Your task to perform on an android device: Search for macbook air on costco.com, select the first entry, add it to the cart, then select checkout. Image 0: 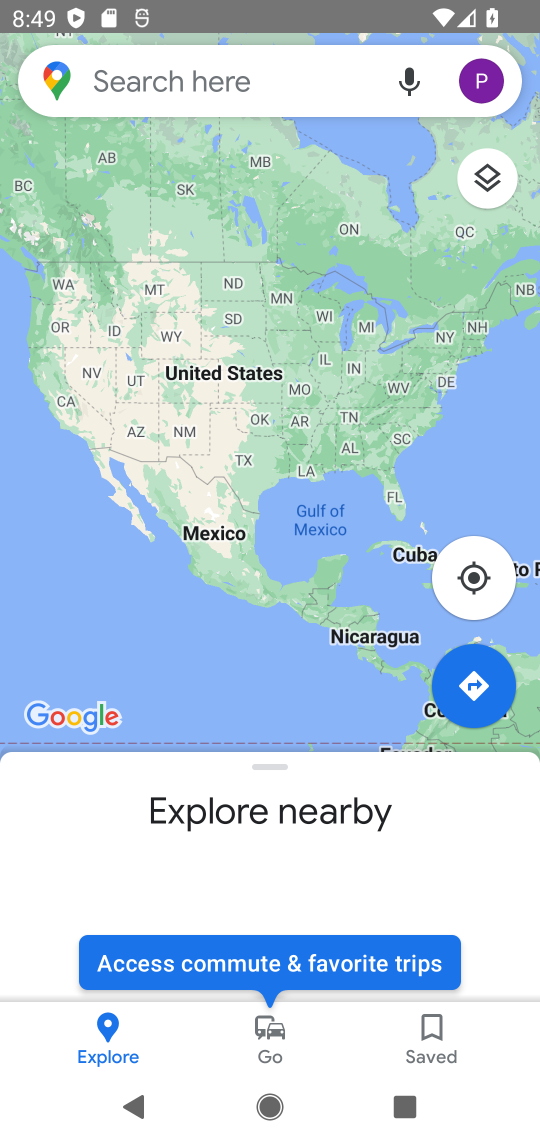
Step 0: press home button
Your task to perform on an android device: Search for macbook air on costco.com, select the first entry, add it to the cart, then select checkout. Image 1: 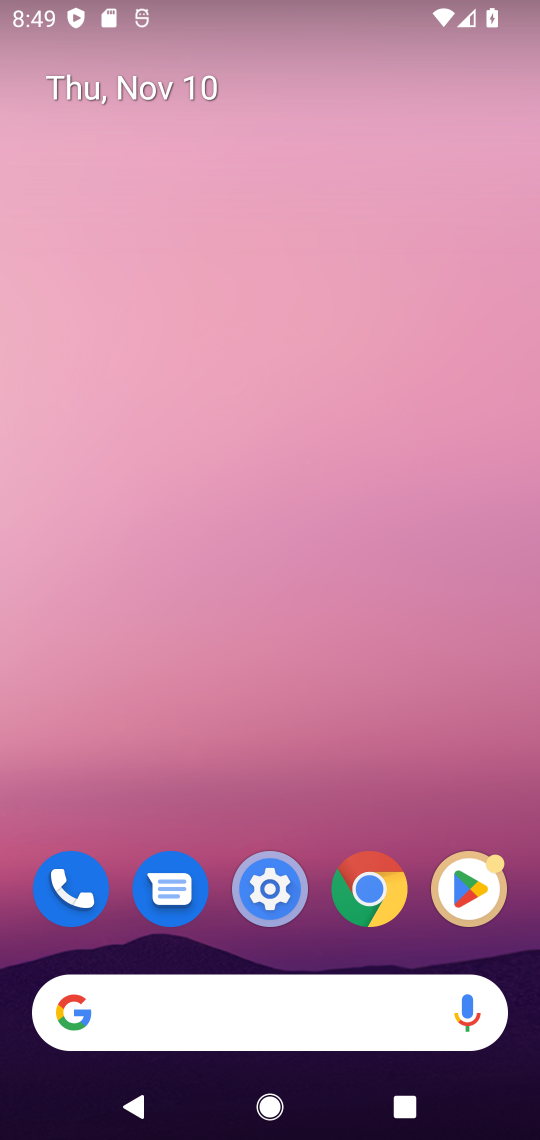
Step 1: click (355, 880)
Your task to perform on an android device: Search for macbook air on costco.com, select the first entry, add it to the cart, then select checkout. Image 2: 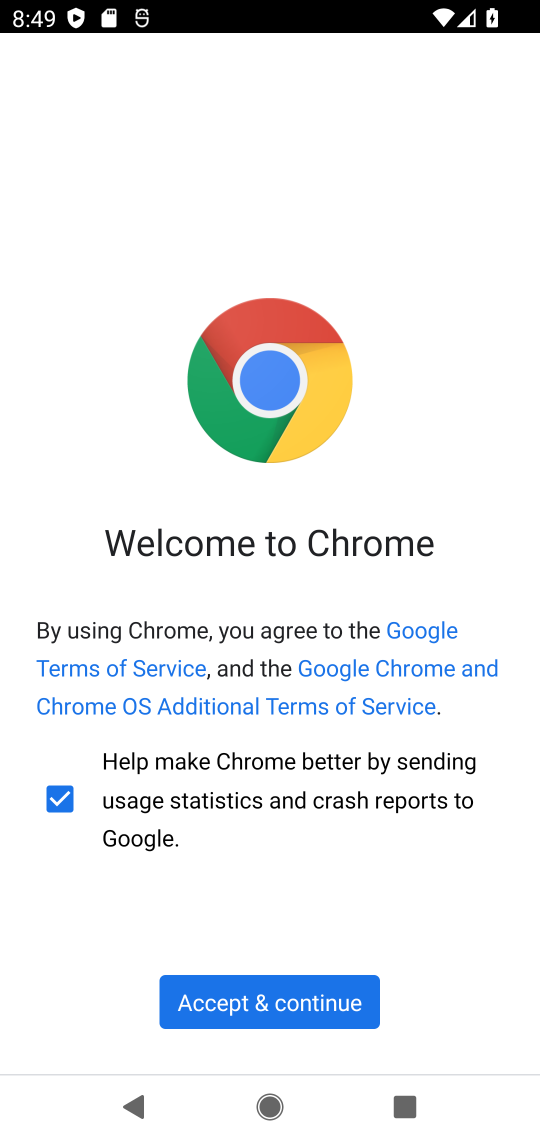
Step 2: click (260, 995)
Your task to perform on an android device: Search for macbook air on costco.com, select the first entry, add it to the cart, then select checkout. Image 3: 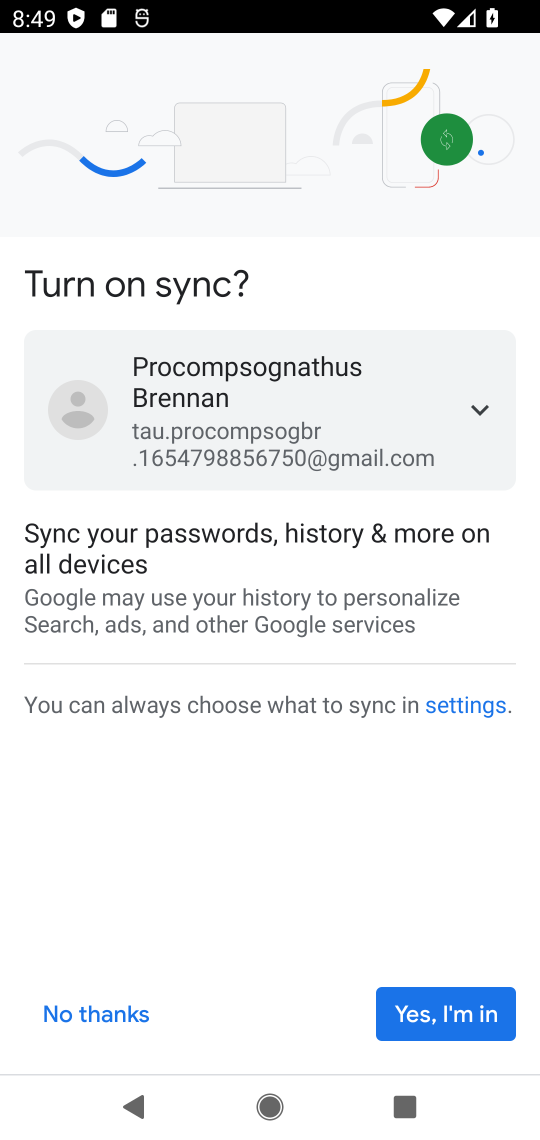
Step 3: click (393, 1022)
Your task to perform on an android device: Search for macbook air on costco.com, select the first entry, add it to the cart, then select checkout. Image 4: 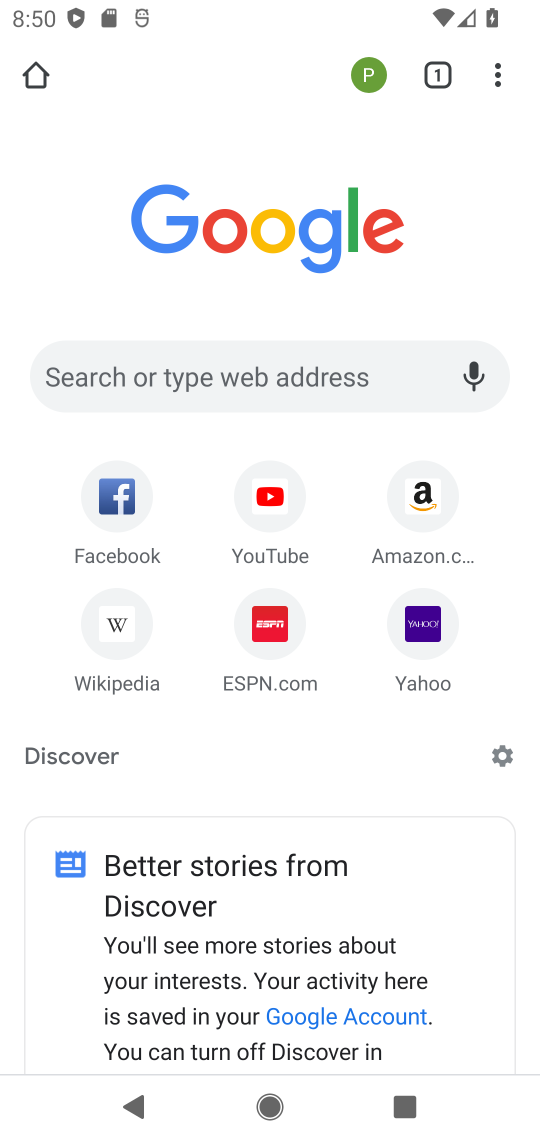
Step 4: click (290, 363)
Your task to perform on an android device: Search for macbook air on costco.com, select the first entry, add it to the cart, then select checkout. Image 5: 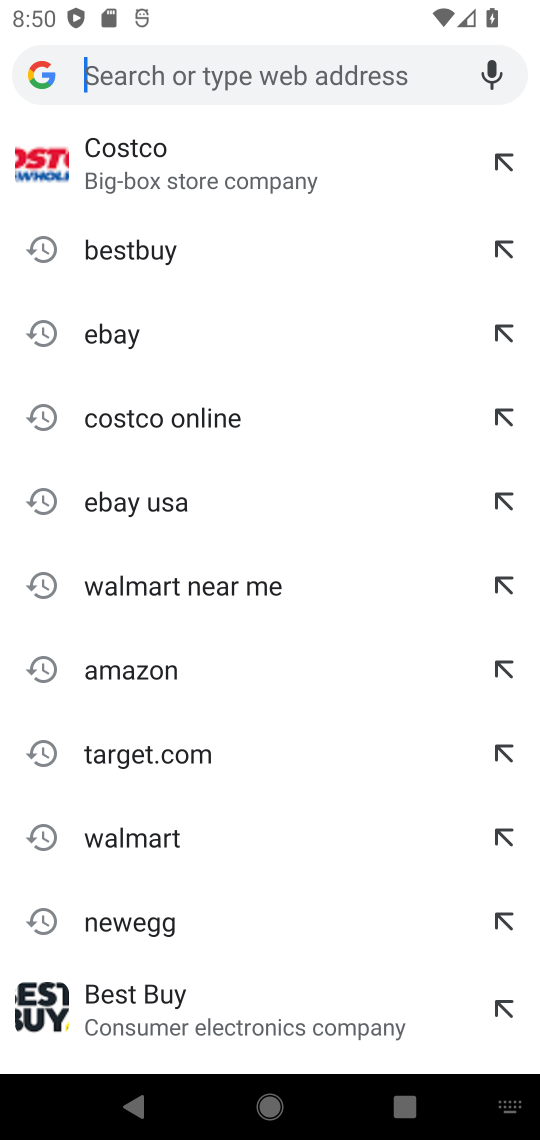
Step 5: click (115, 137)
Your task to perform on an android device: Search for macbook air on costco.com, select the first entry, add it to the cart, then select checkout. Image 6: 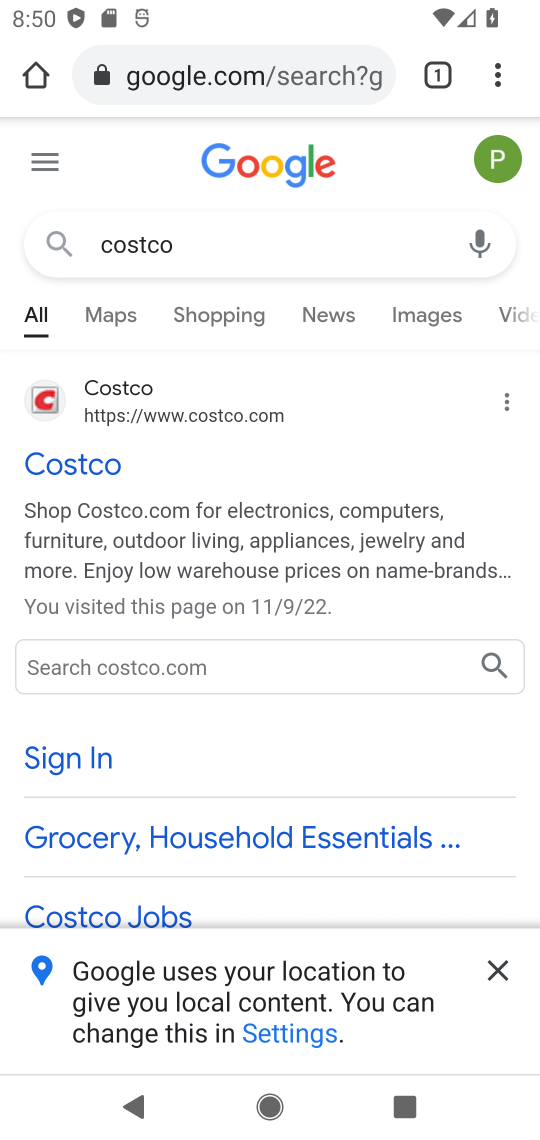
Step 6: click (94, 466)
Your task to perform on an android device: Search for macbook air on costco.com, select the first entry, add it to the cart, then select checkout. Image 7: 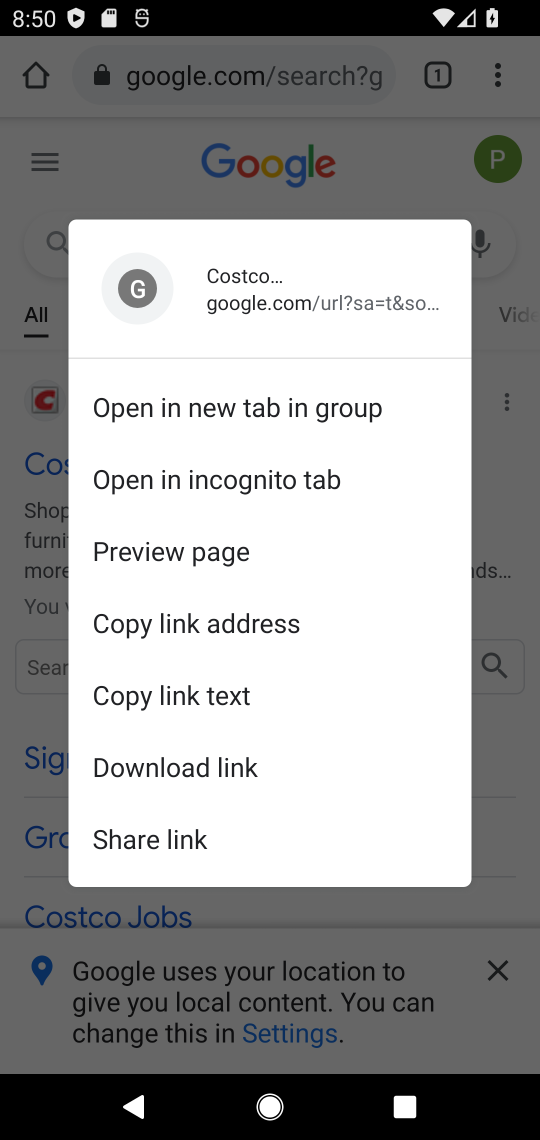
Step 7: click (57, 465)
Your task to perform on an android device: Search for macbook air on costco.com, select the first entry, add it to the cart, then select checkout. Image 8: 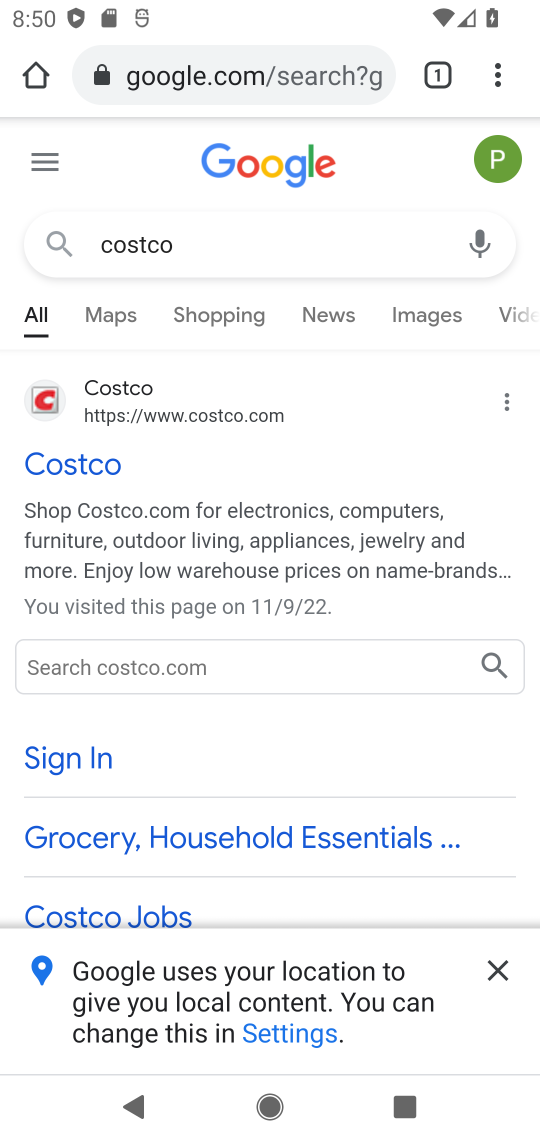
Step 8: click (85, 464)
Your task to perform on an android device: Search for macbook air on costco.com, select the first entry, add it to the cart, then select checkout. Image 9: 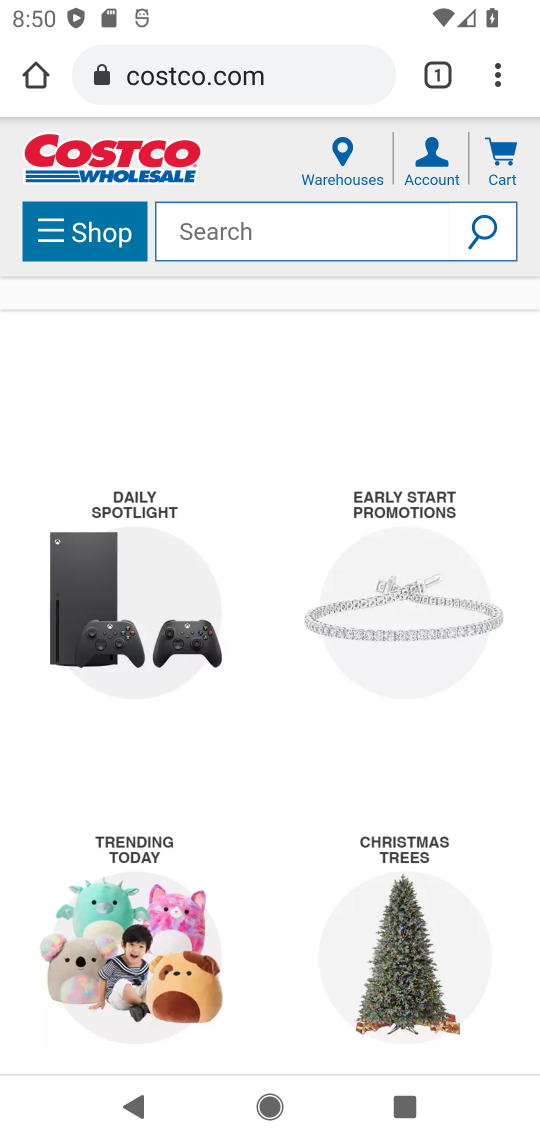
Step 9: click (252, 231)
Your task to perform on an android device: Search for macbook air on costco.com, select the first entry, add it to the cart, then select checkout. Image 10: 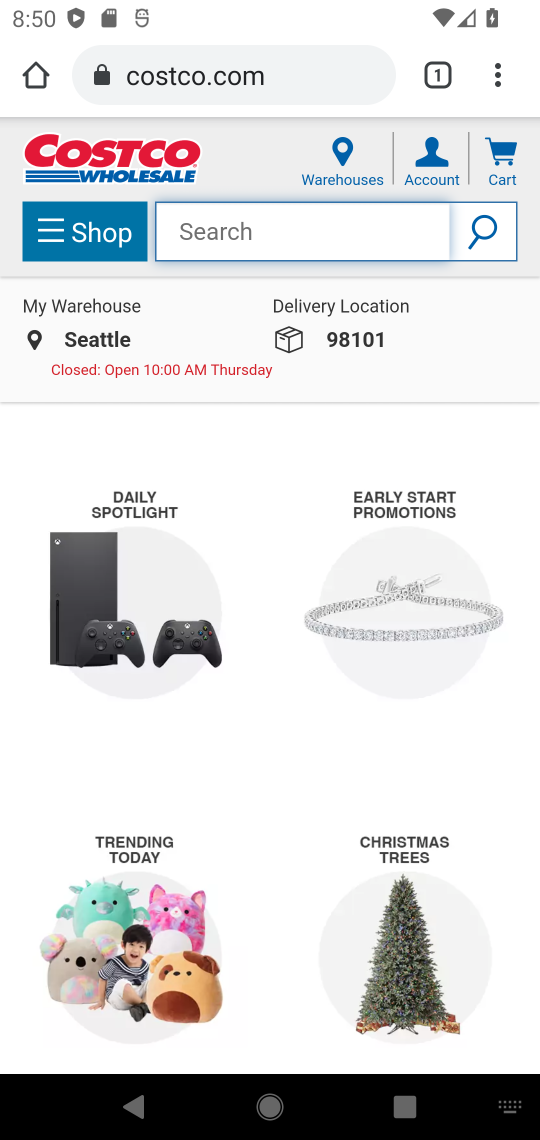
Step 10: type "macbook air"
Your task to perform on an android device: Search for macbook air on costco.com, select the first entry, add it to the cart, then select checkout. Image 11: 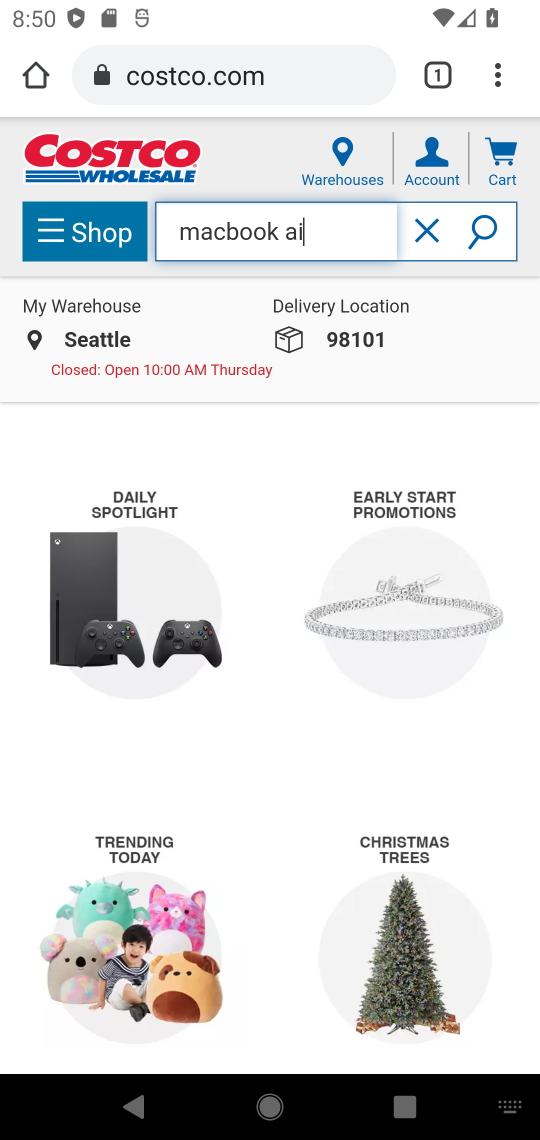
Step 11: press enter
Your task to perform on an android device: Search for macbook air on costco.com, select the first entry, add it to the cart, then select checkout. Image 12: 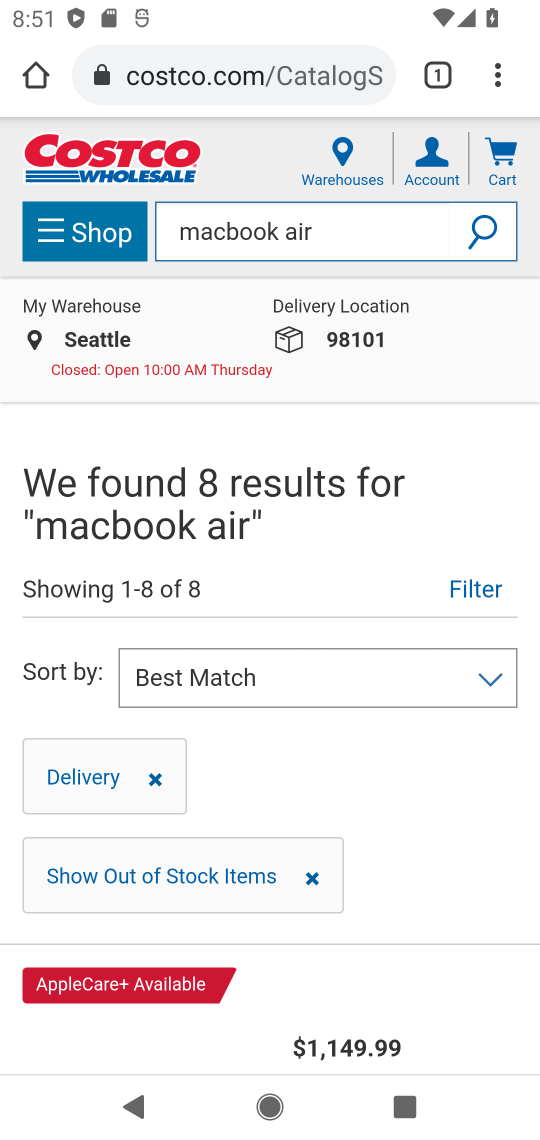
Step 12: drag from (351, 863) to (410, 218)
Your task to perform on an android device: Search for macbook air on costco.com, select the first entry, add it to the cart, then select checkout. Image 13: 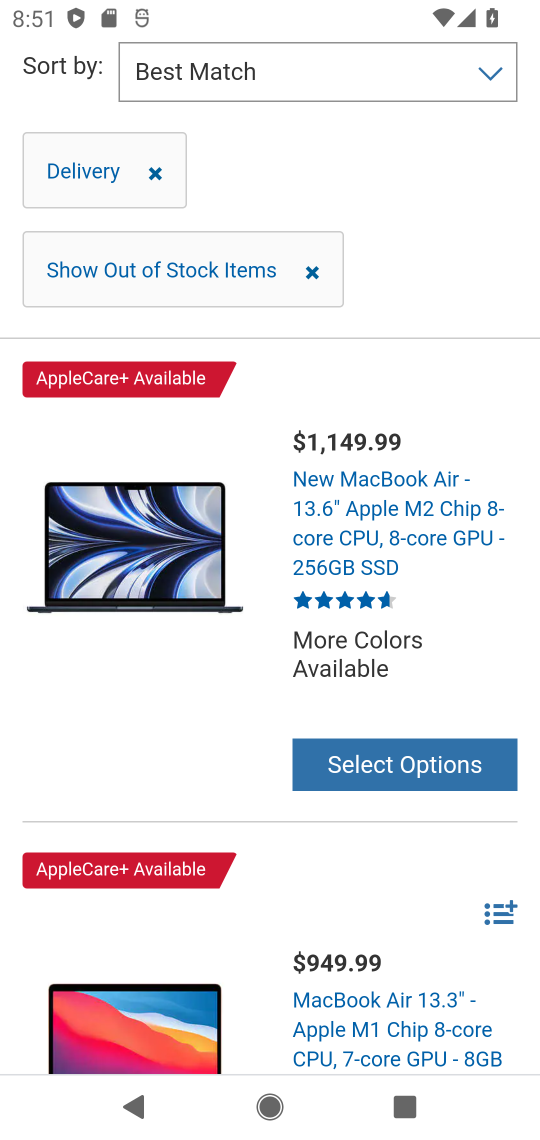
Step 13: click (383, 543)
Your task to perform on an android device: Search for macbook air on costco.com, select the first entry, add it to the cart, then select checkout. Image 14: 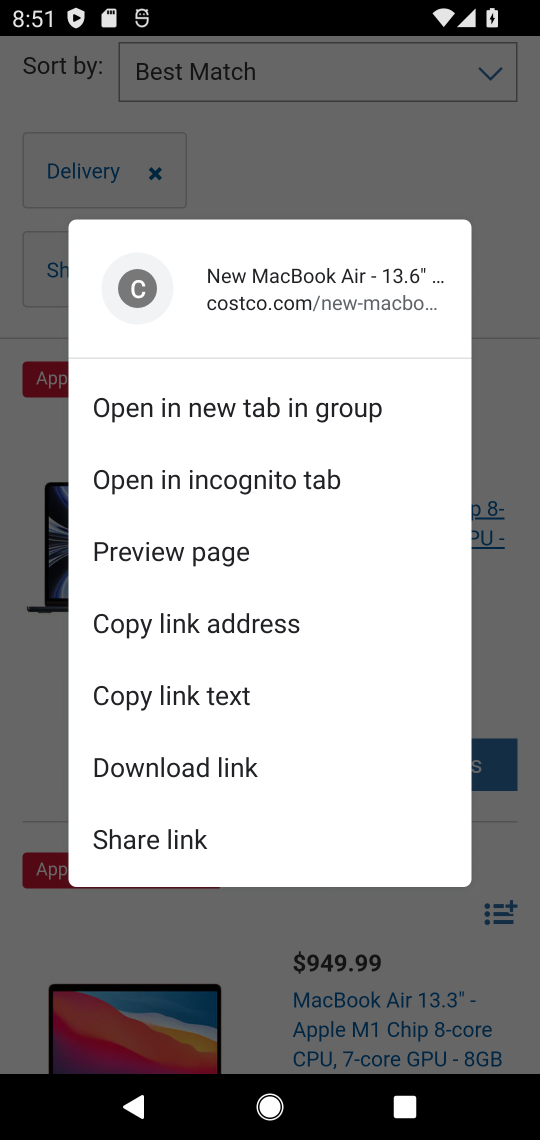
Step 14: click (481, 535)
Your task to perform on an android device: Search for macbook air on costco.com, select the first entry, add it to the cart, then select checkout. Image 15: 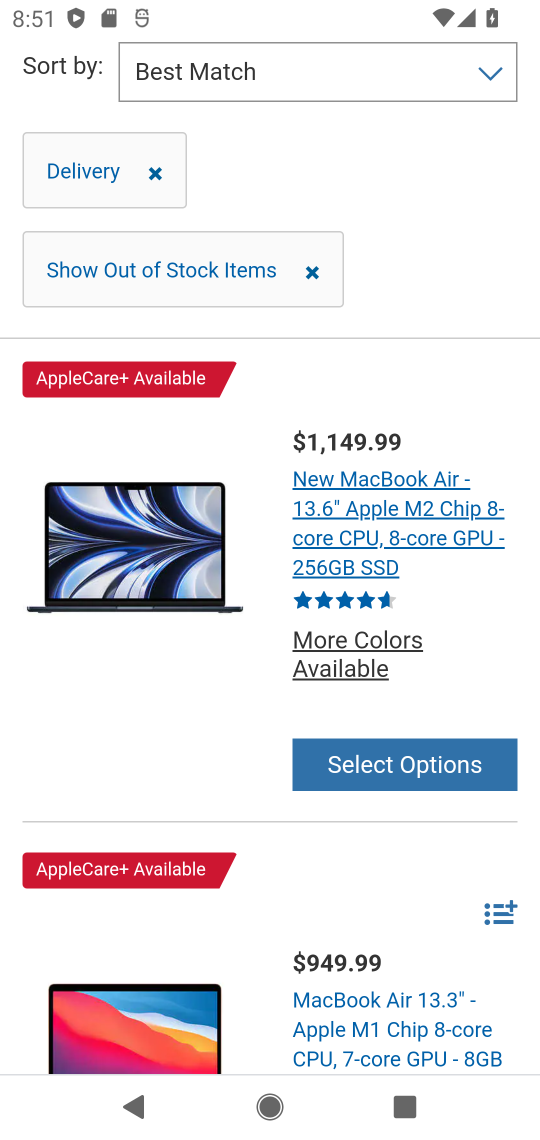
Step 15: drag from (335, 895) to (422, 577)
Your task to perform on an android device: Search for macbook air on costco.com, select the first entry, add it to the cart, then select checkout. Image 16: 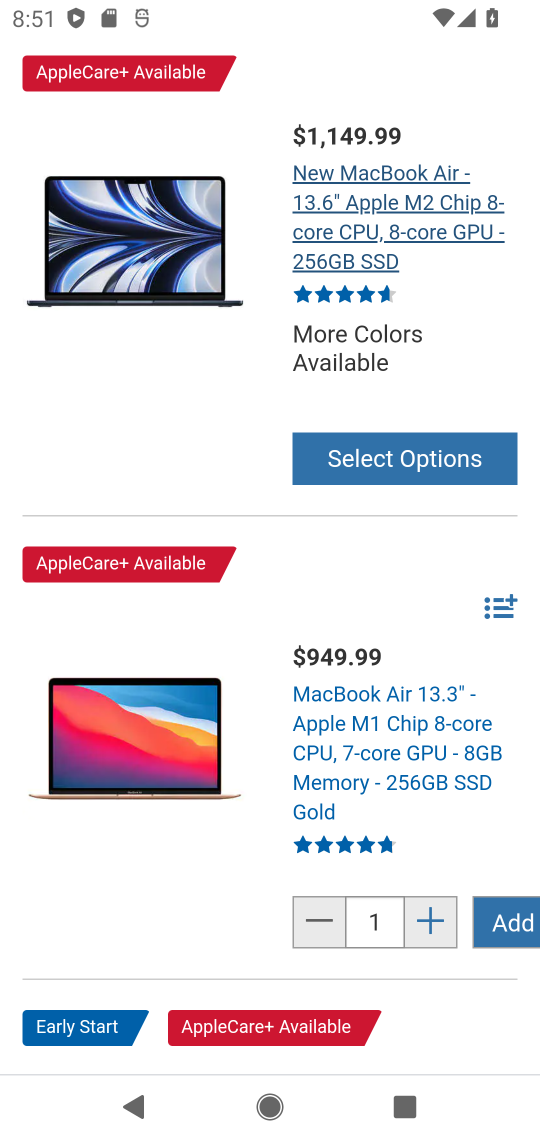
Step 16: click (349, 213)
Your task to perform on an android device: Search for macbook air on costco.com, select the first entry, add it to the cart, then select checkout. Image 17: 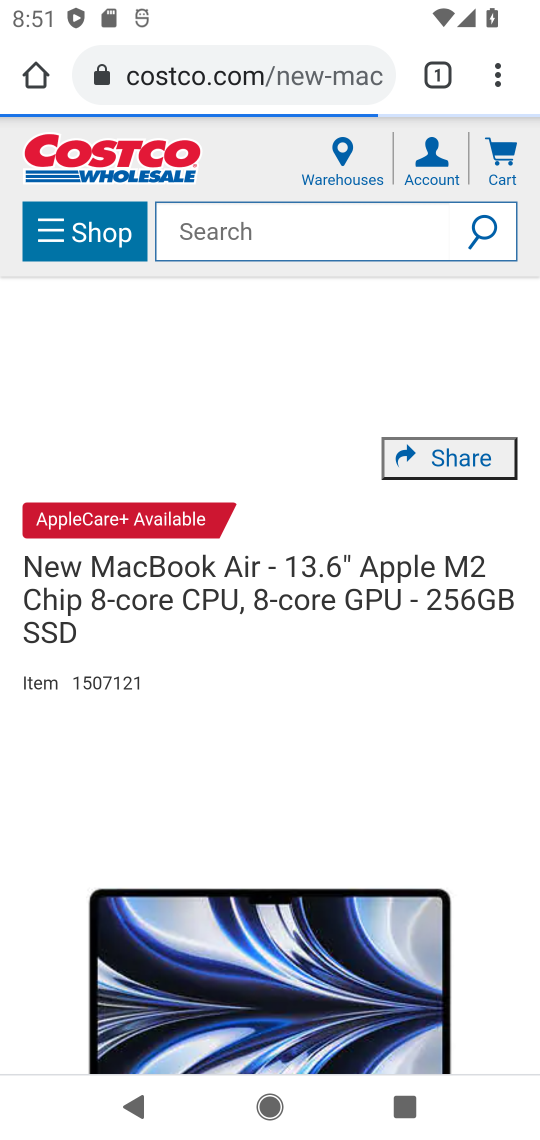
Step 17: drag from (298, 728) to (426, 147)
Your task to perform on an android device: Search for macbook air on costco.com, select the first entry, add it to the cart, then select checkout. Image 18: 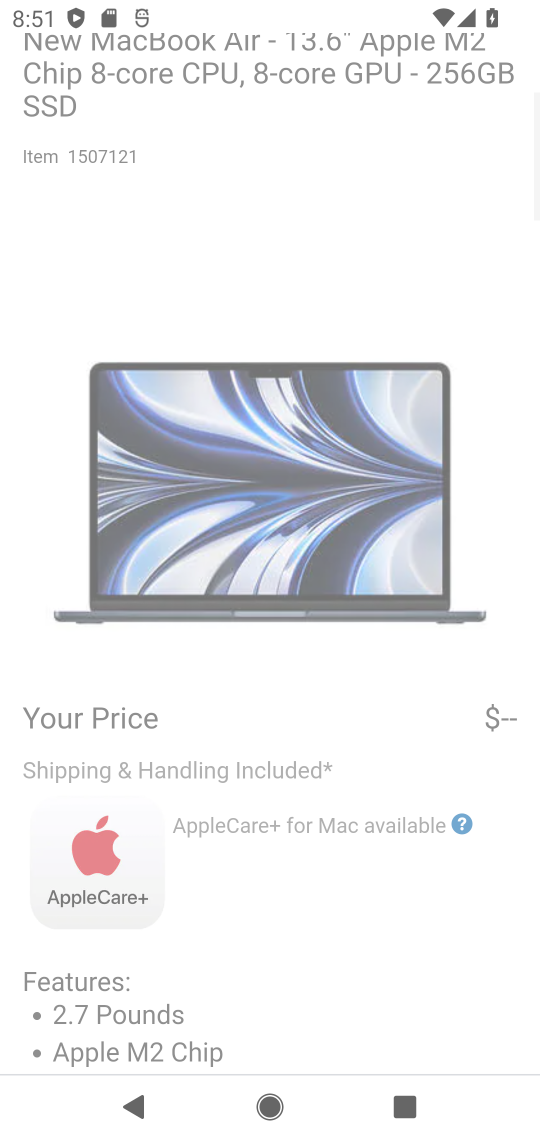
Step 18: drag from (327, 893) to (476, 250)
Your task to perform on an android device: Search for macbook air on costco.com, select the first entry, add it to the cart, then select checkout. Image 19: 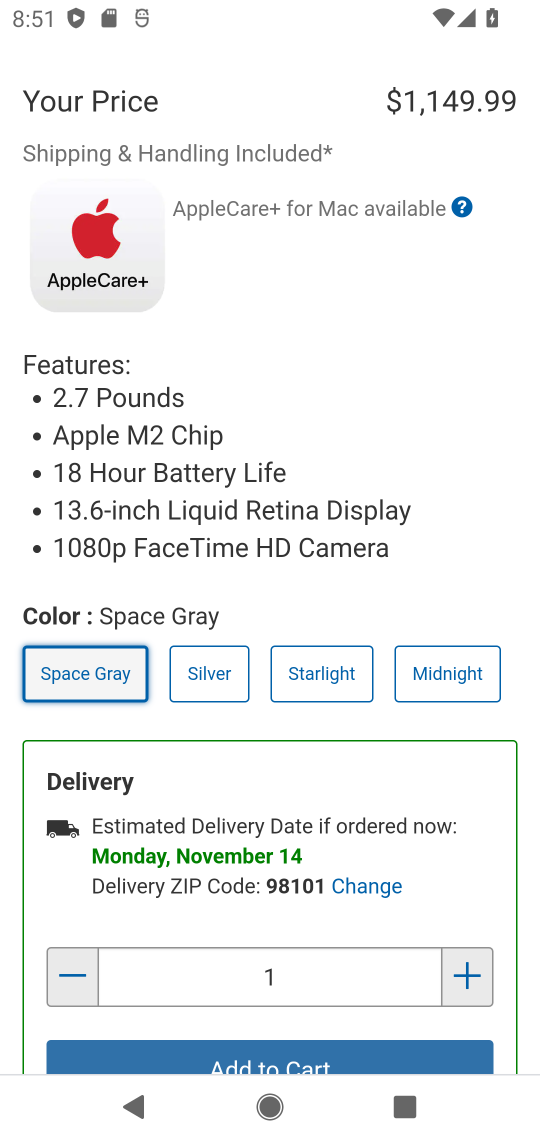
Step 19: drag from (364, 917) to (471, 391)
Your task to perform on an android device: Search for macbook air on costco.com, select the first entry, add it to the cart, then select checkout. Image 20: 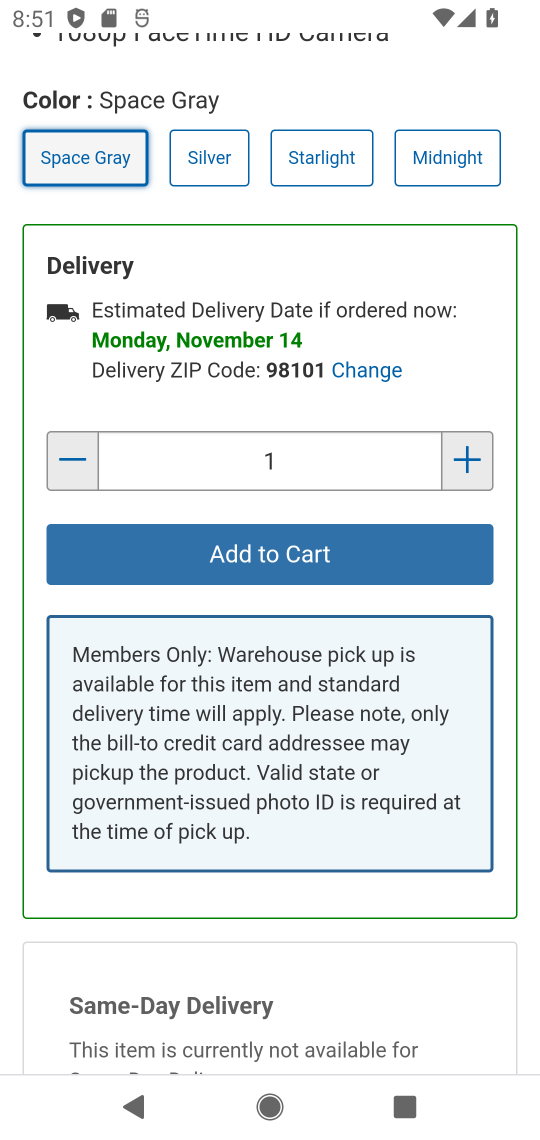
Step 20: click (280, 554)
Your task to perform on an android device: Search for macbook air on costco.com, select the first entry, add it to the cart, then select checkout. Image 21: 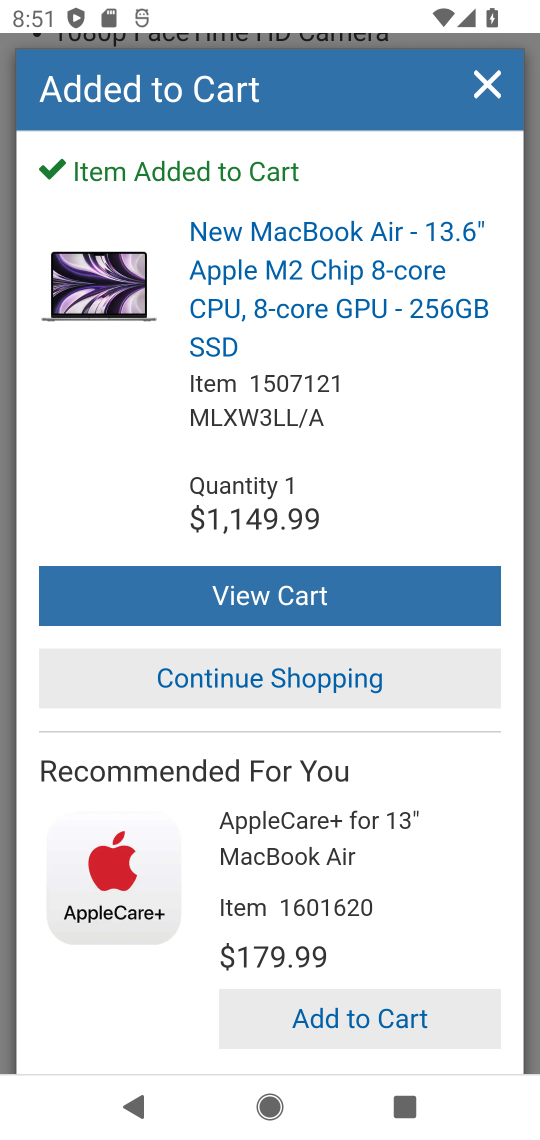
Step 21: click (286, 593)
Your task to perform on an android device: Search for macbook air on costco.com, select the first entry, add it to the cart, then select checkout. Image 22: 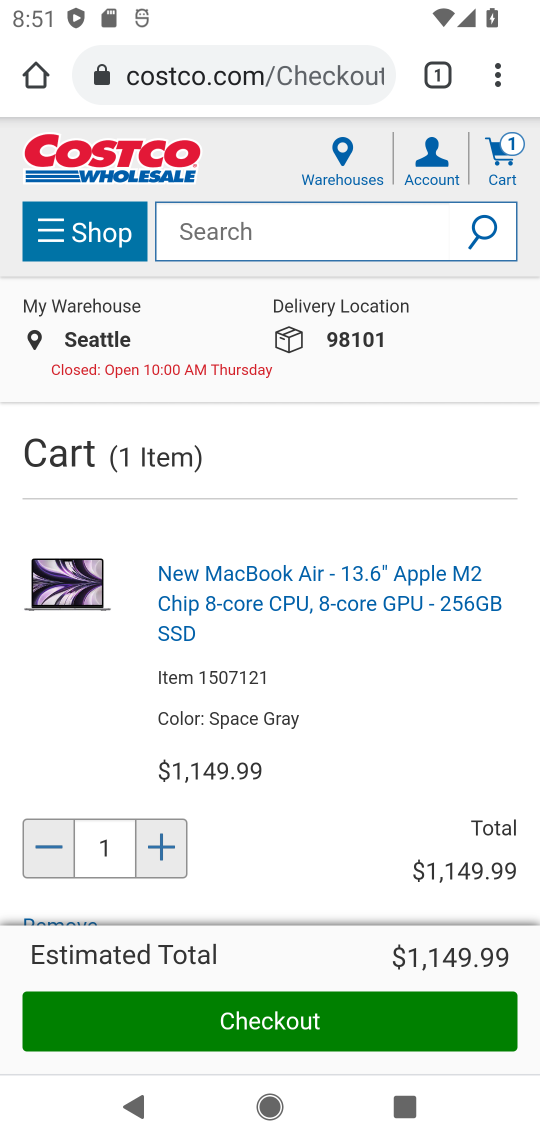
Step 22: click (281, 1010)
Your task to perform on an android device: Search for macbook air on costco.com, select the first entry, add it to the cart, then select checkout. Image 23: 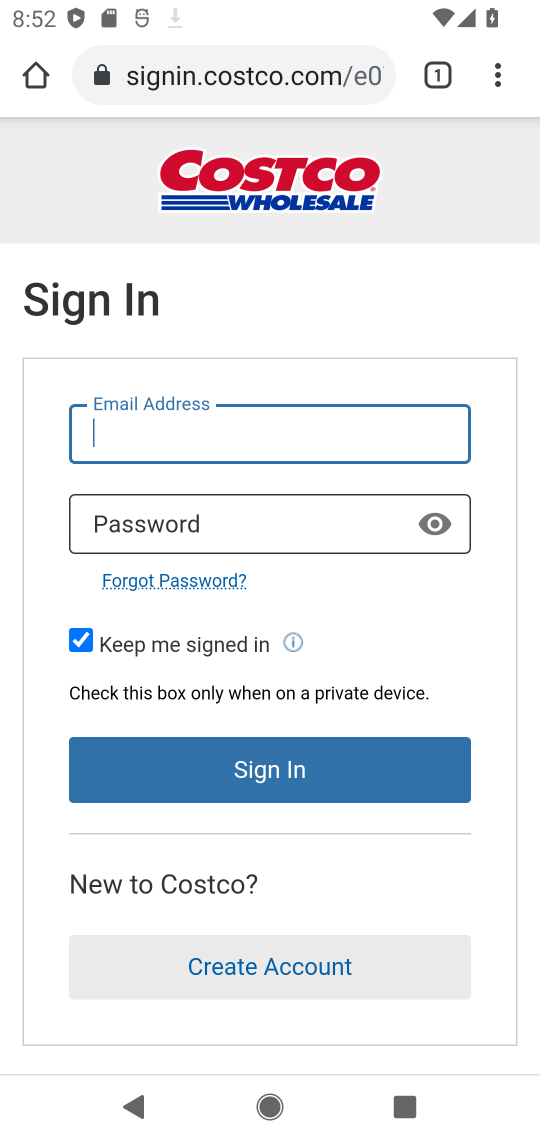
Step 23: task complete